Your task to perform on an android device: Go to settings Image 0: 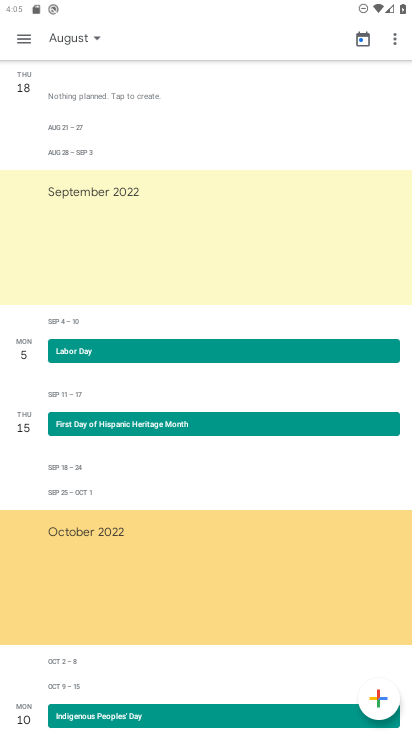
Step 0: press home button
Your task to perform on an android device: Go to settings Image 1: 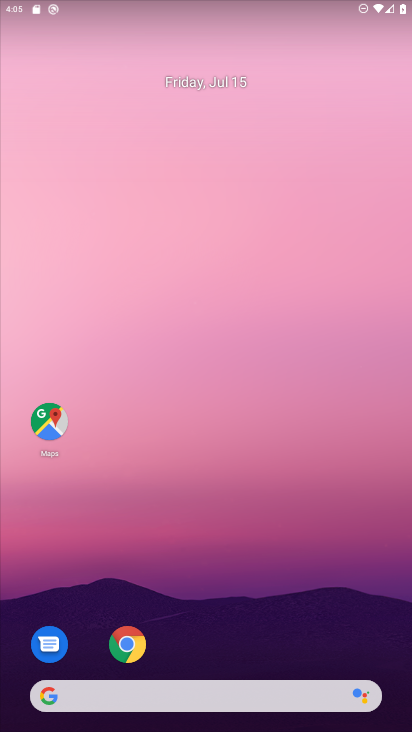
Step 1: drag from (45, 528) to (234, 105)
Your task to perform on an android device: Go to settings Image 2: 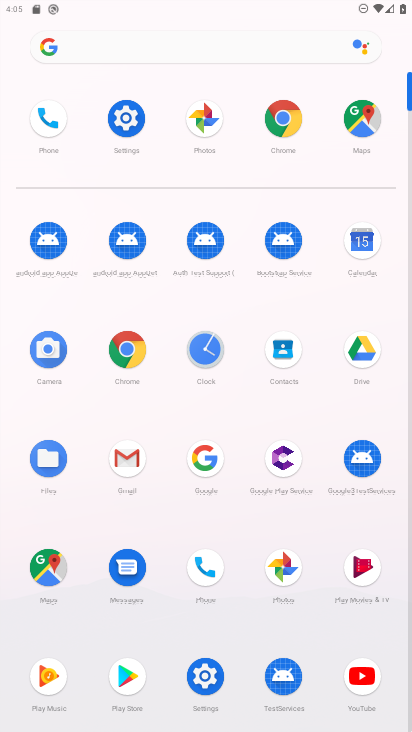
Step 2: click (130, 128)
Your task to perform on an android device: Go to settings Image 3: 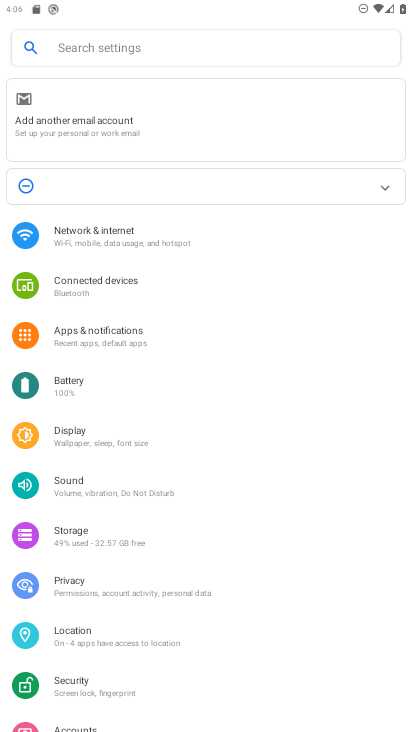
Step 3: task complete